Your task to perform on an android device: toggle location history Image 0: 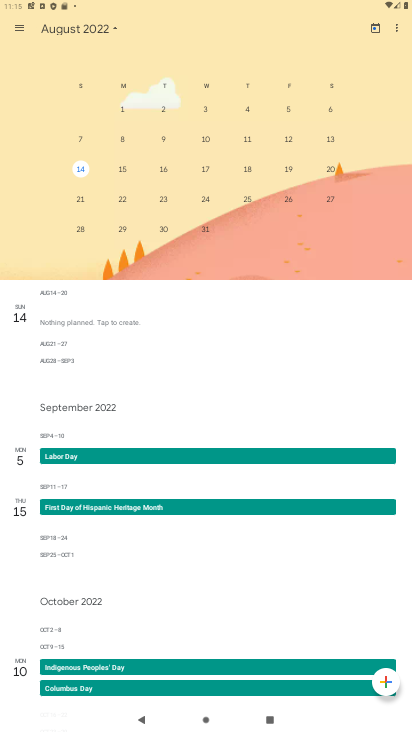
Step 0: press home button
Your task to perform on an android device: toggle location history Image 1: 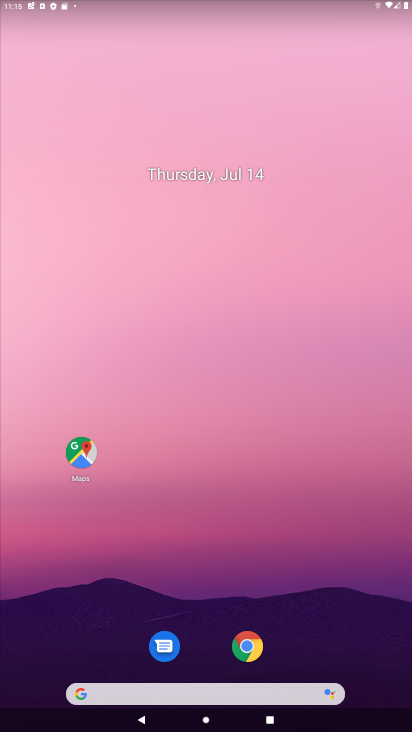
Step 1: drag from (195, 648) to (161, 264)
Your task to perform on an android device: toggle location history Image 2: 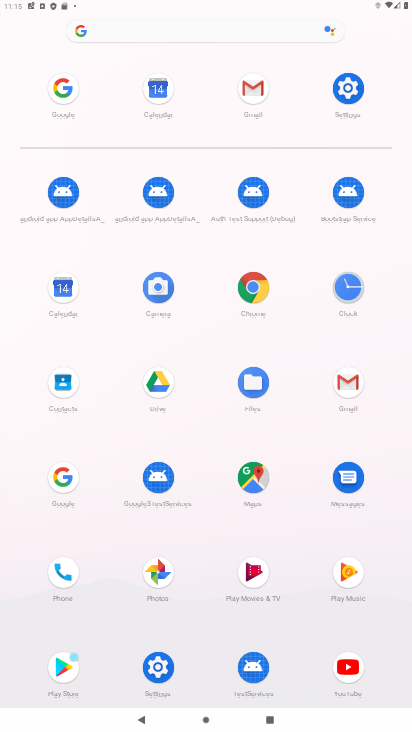
Step 2: click (362, 100)
Your task to perform on an android device: toggle location history Image 3: 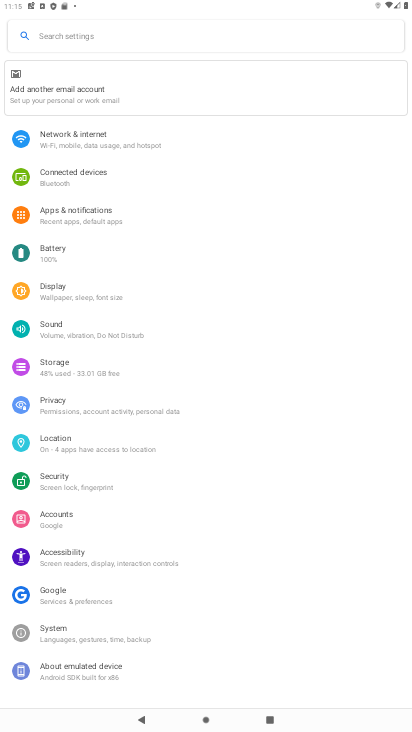
Step 3: click (55, 450)
Your task to perform on an android device: toggle location history Image 4: 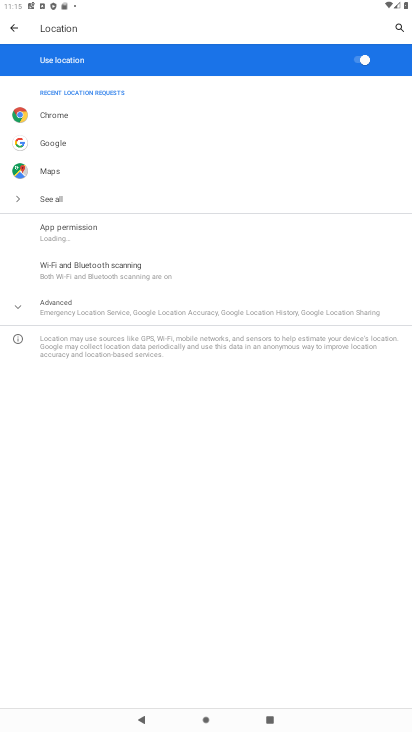
Step 4: click (107, 310)
Your task to perform on an android device: toggle location history Image 5: 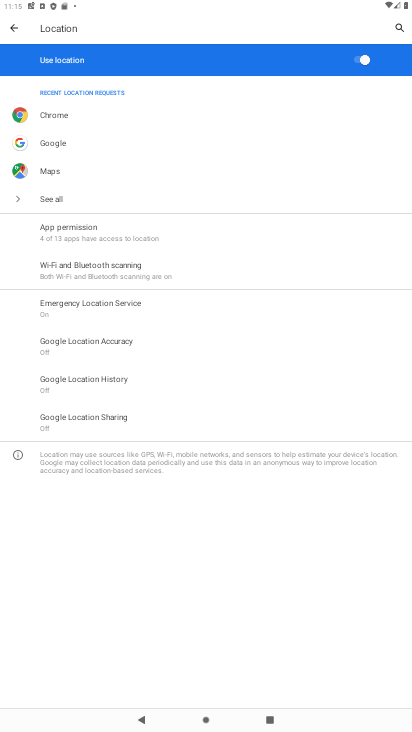
Step 5: click (118, 385)
Your task to perform on an android device: toggle location history Image 6: 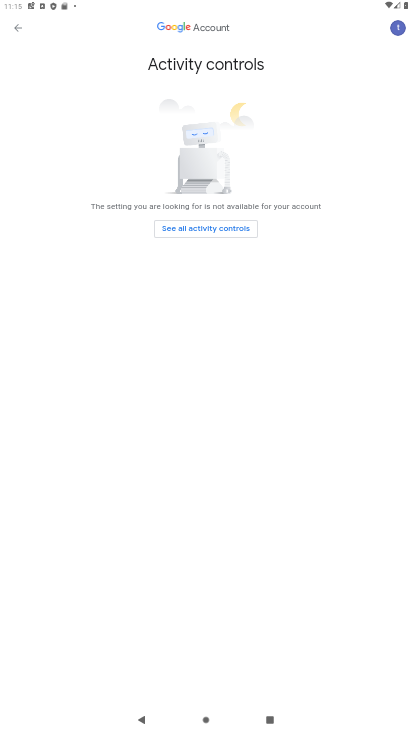
Step 6: task complete